Your task to perform on an android device: all mails in gmail Image 0: 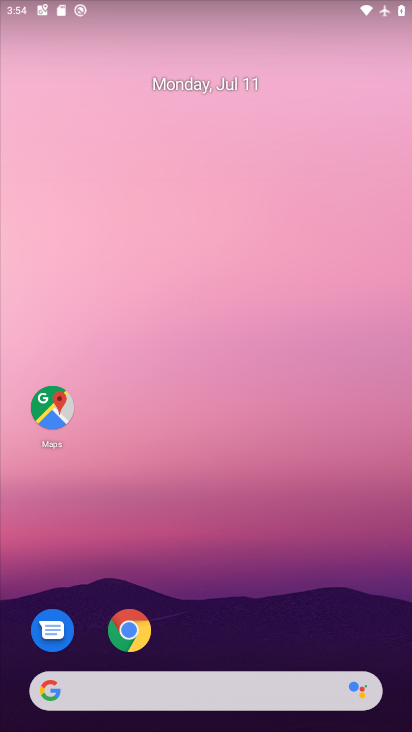
Step 0: drag from (277, 637) to (163, 173)
Your task to perform on an android device: all mails in gmail Image 1: 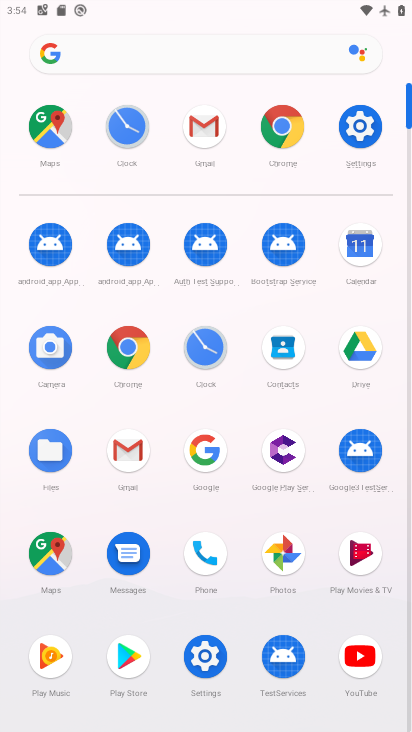
Step 1: click (193, 153)
Your task to perform on an android device: all mails in gmail Image 2: 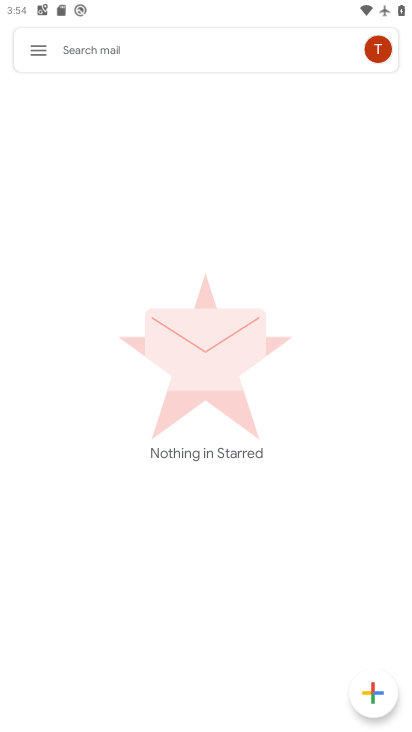
Step 2: click (30, 60)
Your task to perform on an android device: all mails in gmail Image 3: 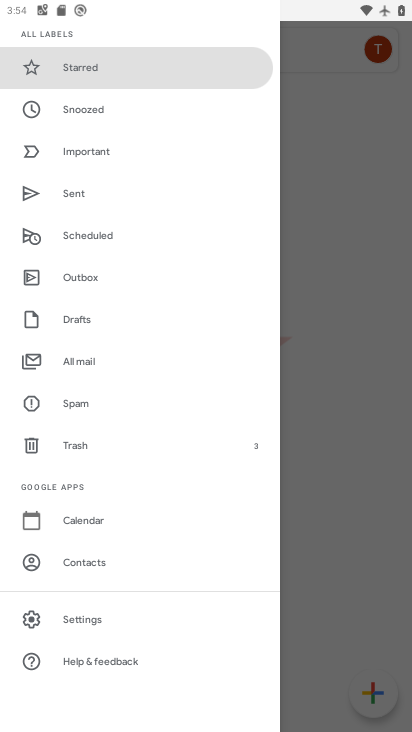
Step 3: click (44, 371)
Your task to perform on an android device: all mails in gmail Image 4: 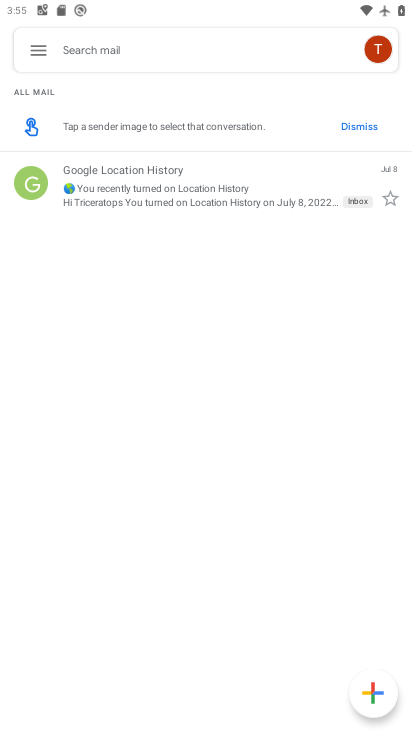
Step 4: task complete